Your task to perform on an android device: Open calendar and show me the fourth week of next month Image 0: 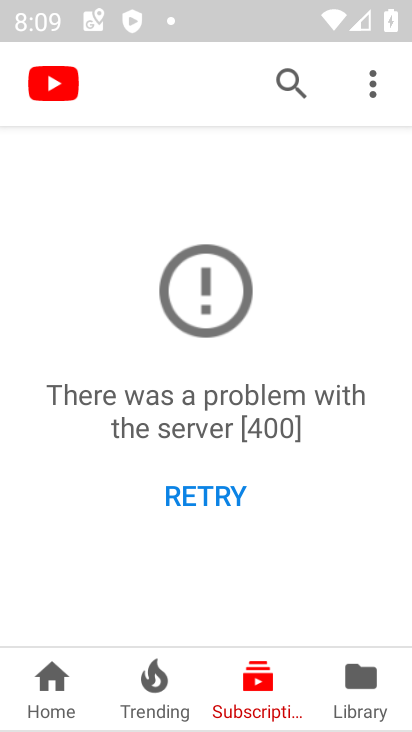
Step 0: press home button
Your task to perform on an android device: Open calendar and show me the fourth week of next month Image 1: 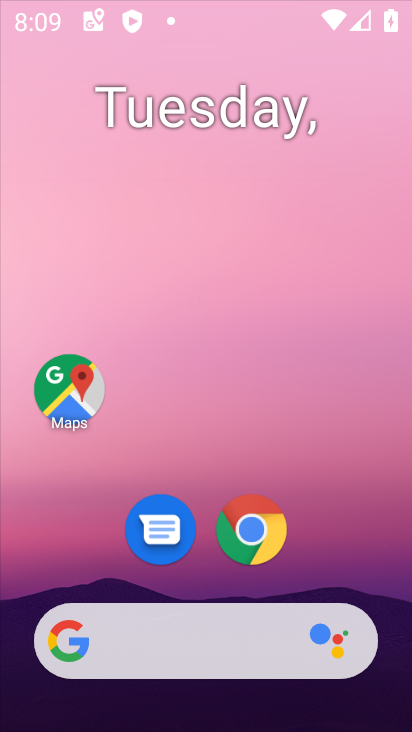
Step 1: drag from (234, 679) to (272, 113)
Your task to perform on an android device: Open calendar and show me the fourth week of next month Image 2: 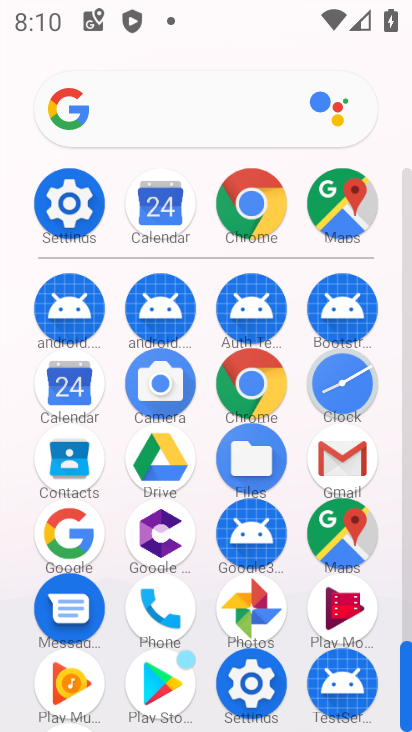
Step 2: click (81, 401)
Your task to perform on an android device: Open calendar and show me the fourth week of next month Image 3: 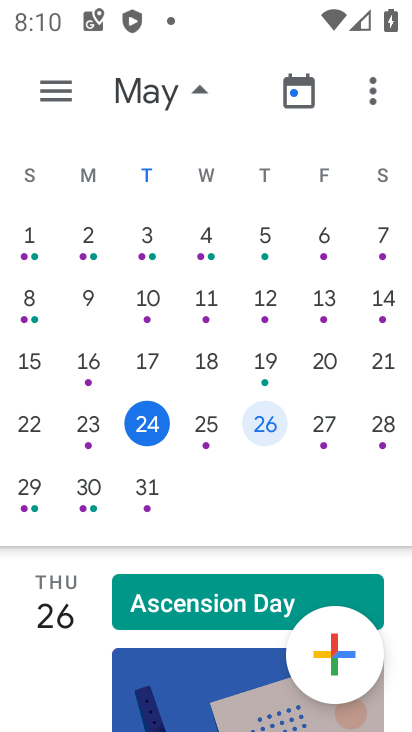
Step 3: drag from (372, 399) to (67, 345)
Your task to perform on an android device: Open calendar and show me the fourth week of next month Image 4: 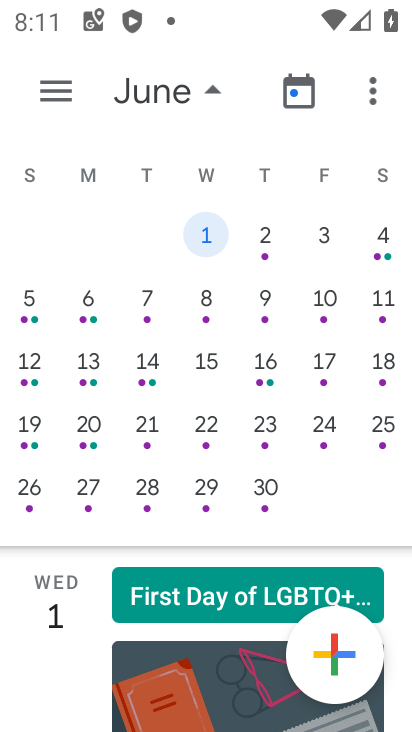
Step 4: click (40, 439)
Your task to perform on an android device: Open calendar and show me the fourth week of next month Image 5: 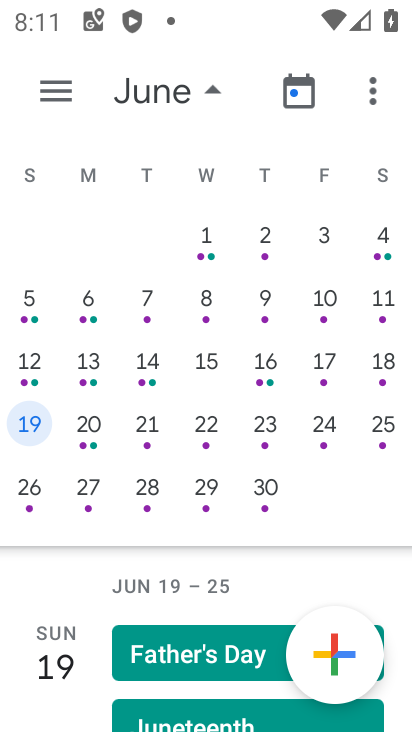
Step 5: task complete